Your task to perform on an android device: Open the calendar and show me this week's events Image 0: 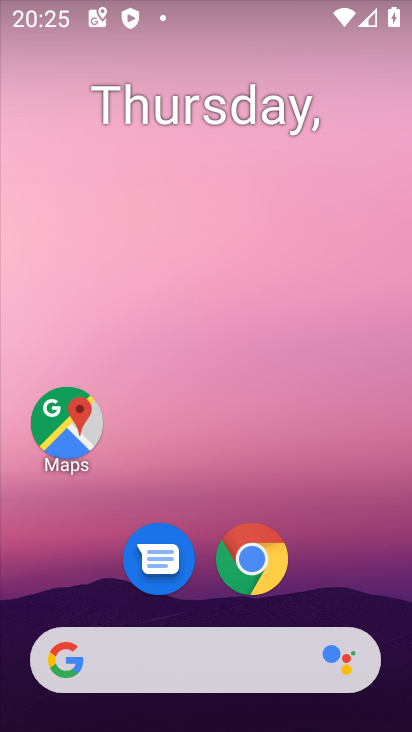
Step 0: press home button
Your task to perform on an android device: Open the calendar and show me this week's events Image 1: 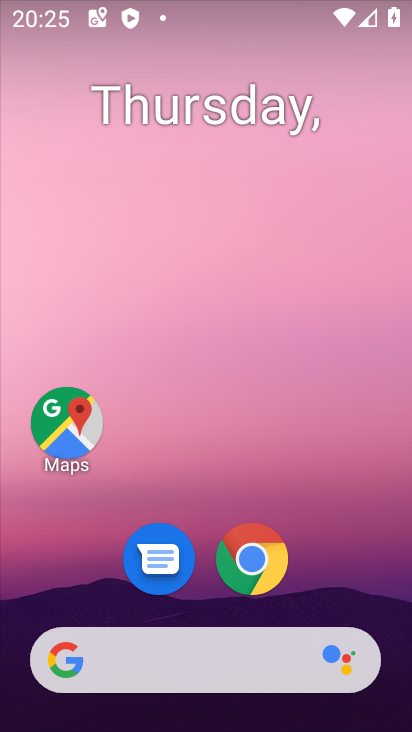
Step 1: drag from (260, 657) to (407, 202)
Your task to perform on an android device: Open the calendar and show me this week's events Image 2: 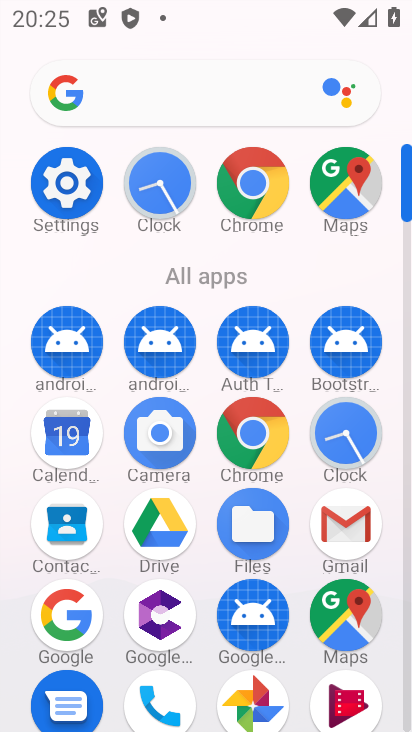
Step 2: click (93, 441)
Your task to perform on an android device: Open the calendar and show me this week's events Image 3: 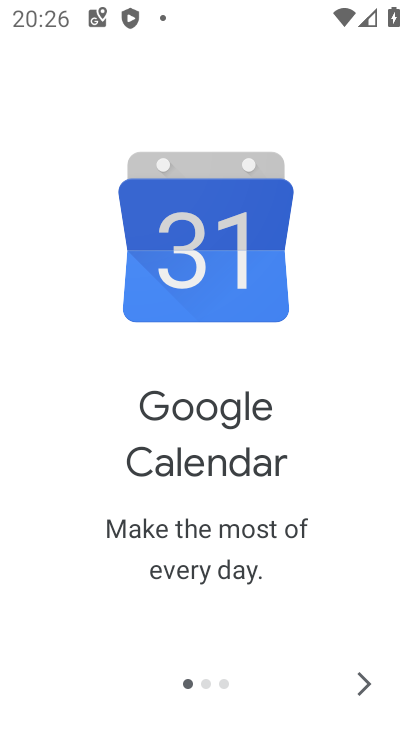
Step 3: click (361, 684)
Your task to perform on an android device: Open the calendar and show me this week's events Image 4: 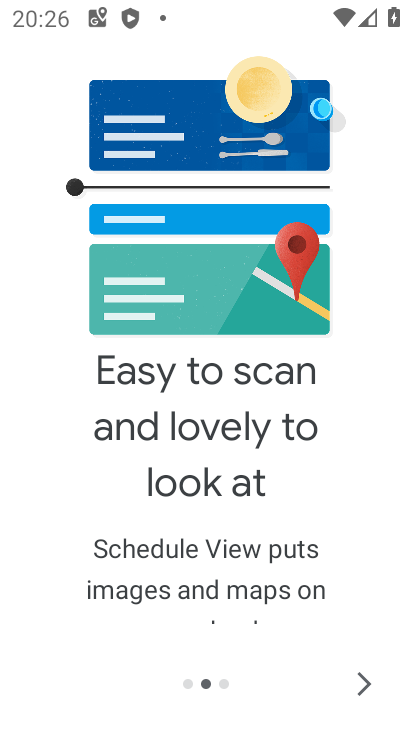
Step 4: click (357, 689)
Your task to perform on an android device: Open the calendar and show me this week's events Image 5: 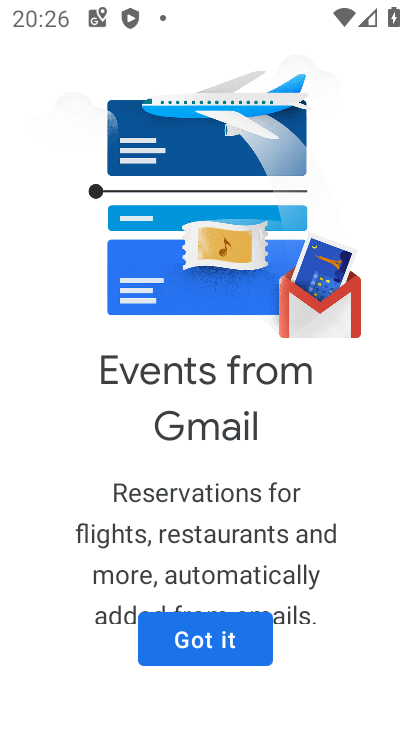
Step 5: click (168, 638)
Your task to perform on an android device: Open the calendar and show me this week's events Image 6: 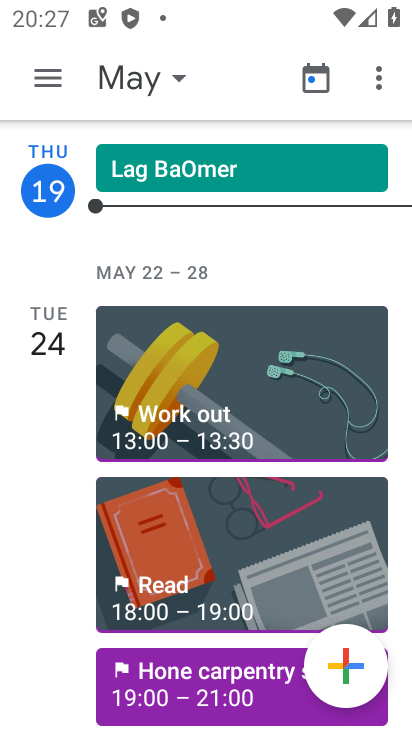
Step 6: click (60, 80)
Your task to perform on an android device: Open the calendar and show me this week's events Image 7: 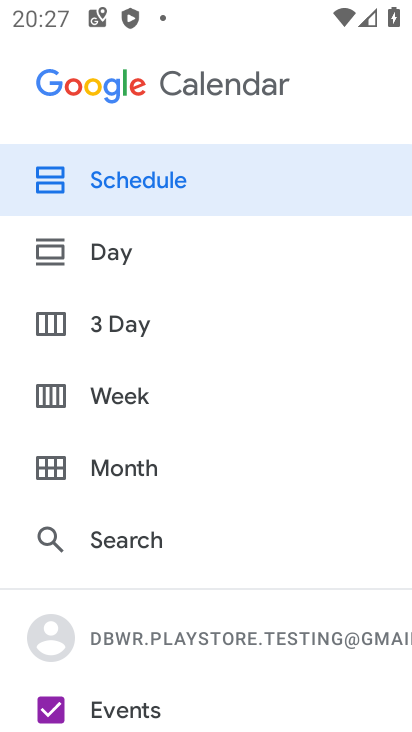
Step 7: click (108, 410)
Your task to perform on an android device: Open the calendar and show me this week's events Image 8: 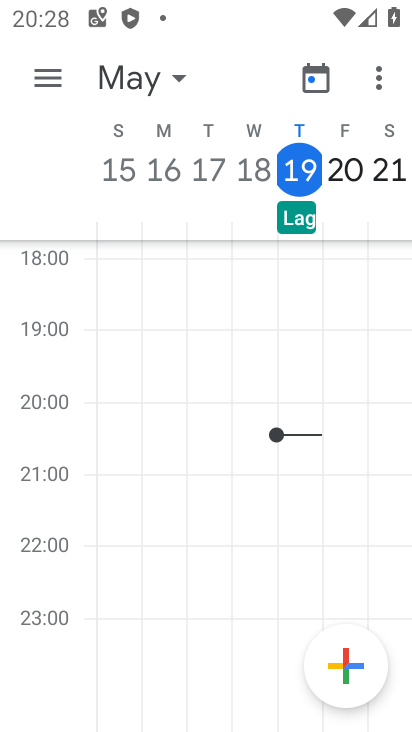
Step 8: task complete